Your task to perform on an android device: Open internet settings Image 0: 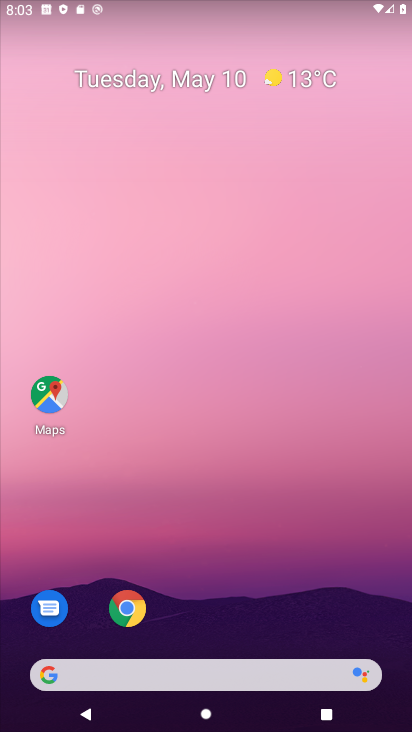
Step 0: press home button
Your task to perform on an android device: Open internet settings Image 1: 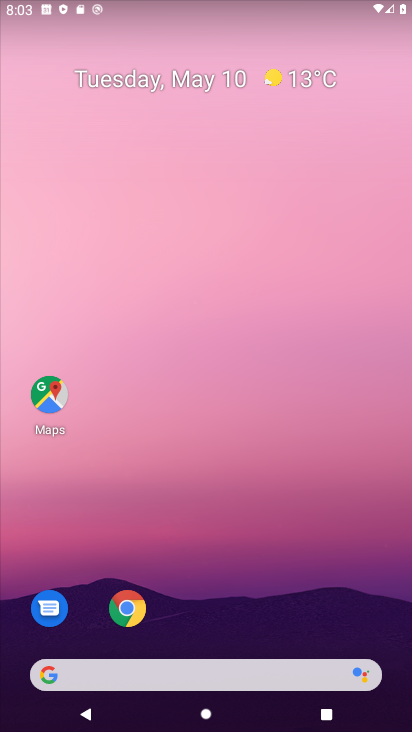
Step 1: drag from (187, 675) to (322, 159)
Your task to perform on an android device: Open internet settings Image 2: 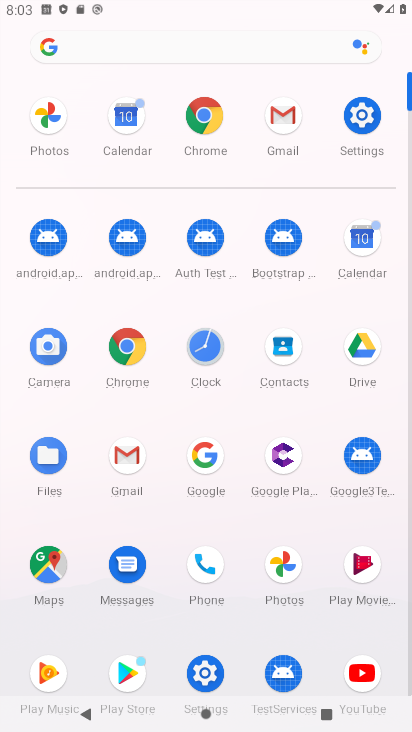
Step 2: click (360, 119)
Your task to perform on an android device: Open internet settings Image 3: 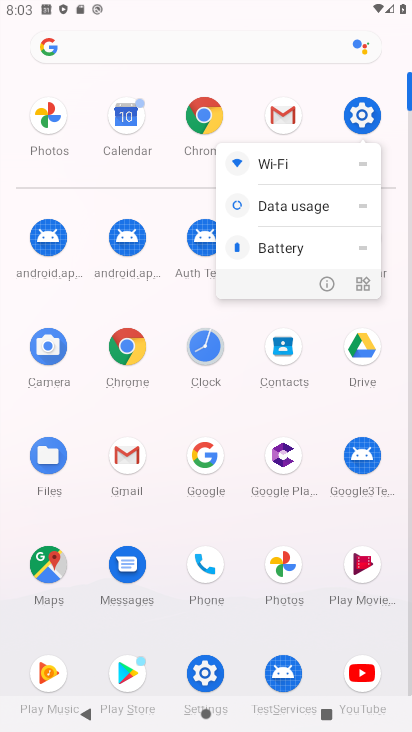
Step 3: click (367, 111)
Your task to perform on an android device: Open internet settings Image 4: 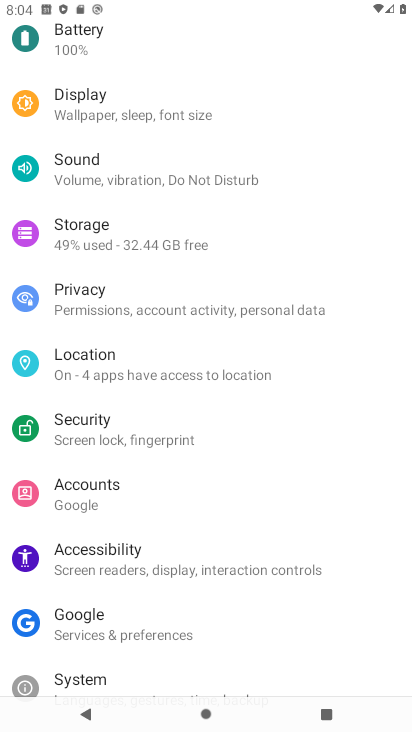
Step 4: drag from (257, 53) to (237, 514)
Your task to perform on an android device: Open internet settings Image 5: 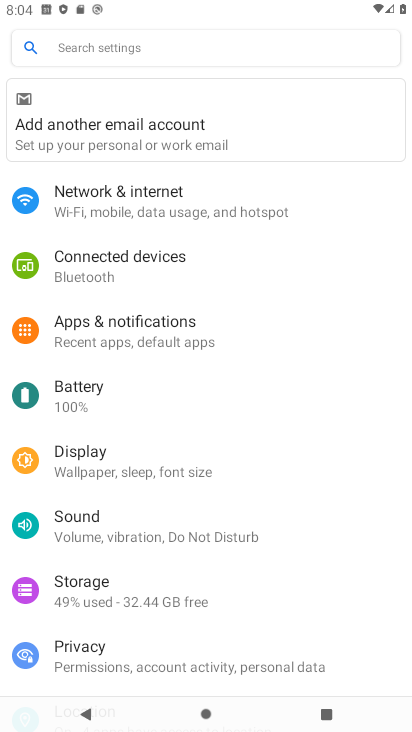
Step 5: click (130, 192)
Your task to perform on an android device: Open internet settings Image 6: 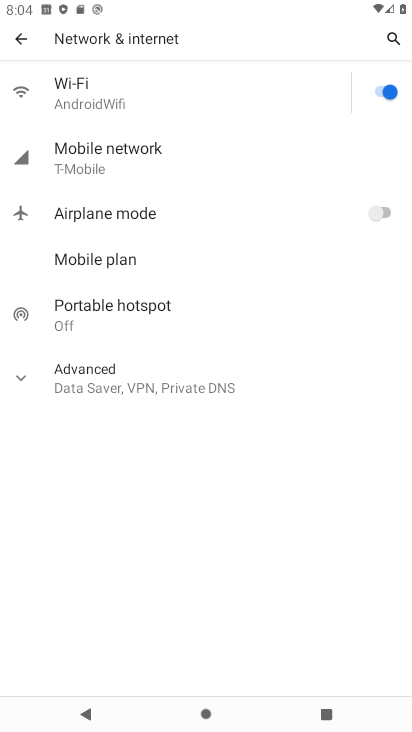
Step 6: task complete